Your task to perform on an android device: Check the weather Image 0: 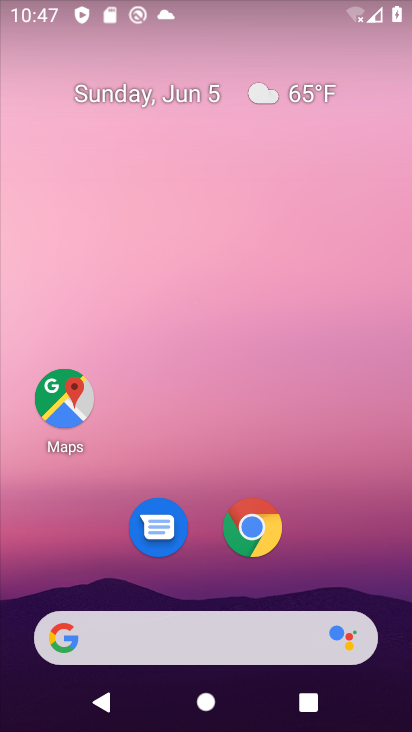
Step 0: click (307, 90)
Your task to perform on an android device: Check the weather Image 1: 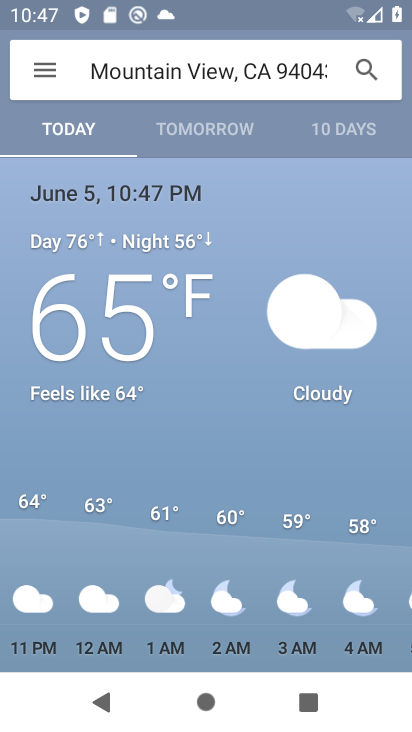
Step 1: task complete